Your task to perform on an android device: Do I have any events tomorrow? Image 0: 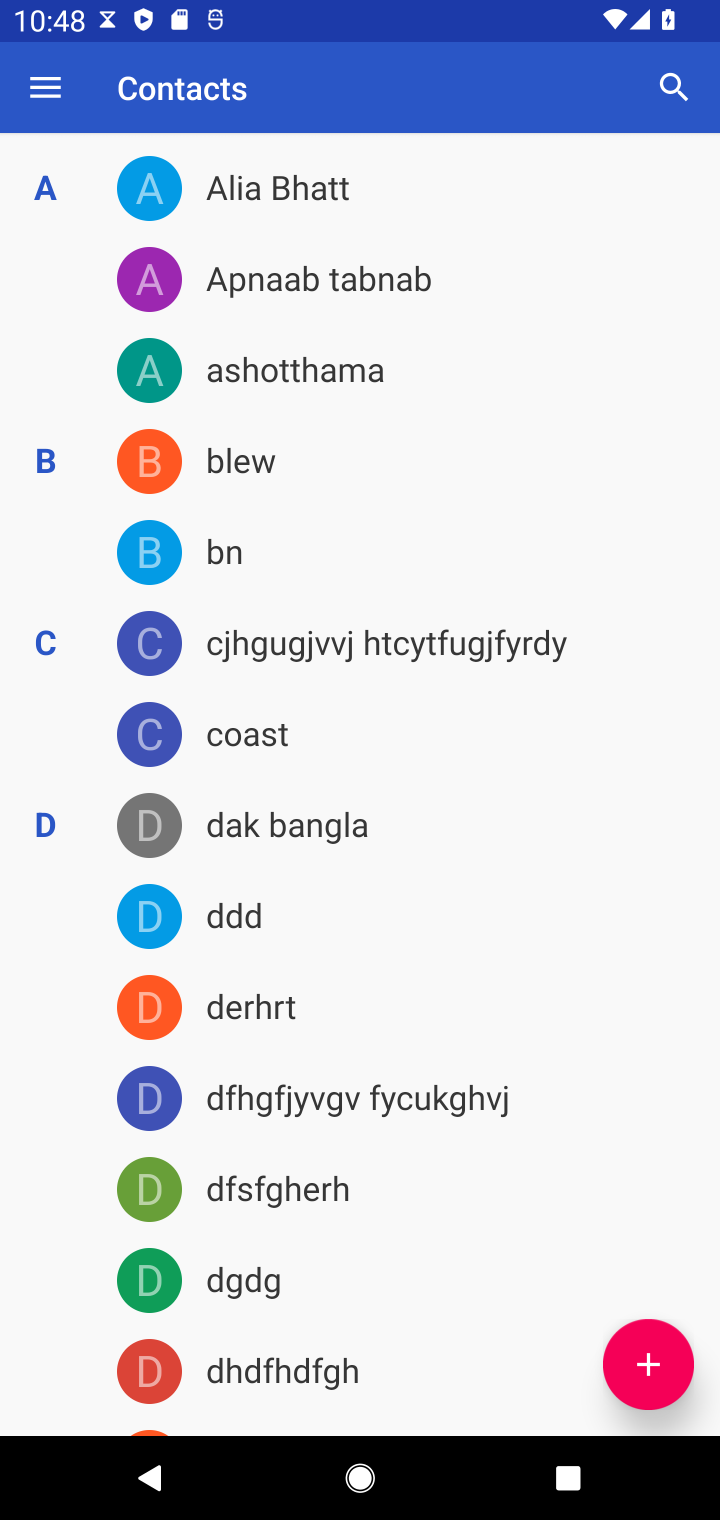
Step 0: press back button
Your task to perform on an android device: Do I have any events tomorrow? Image 1: 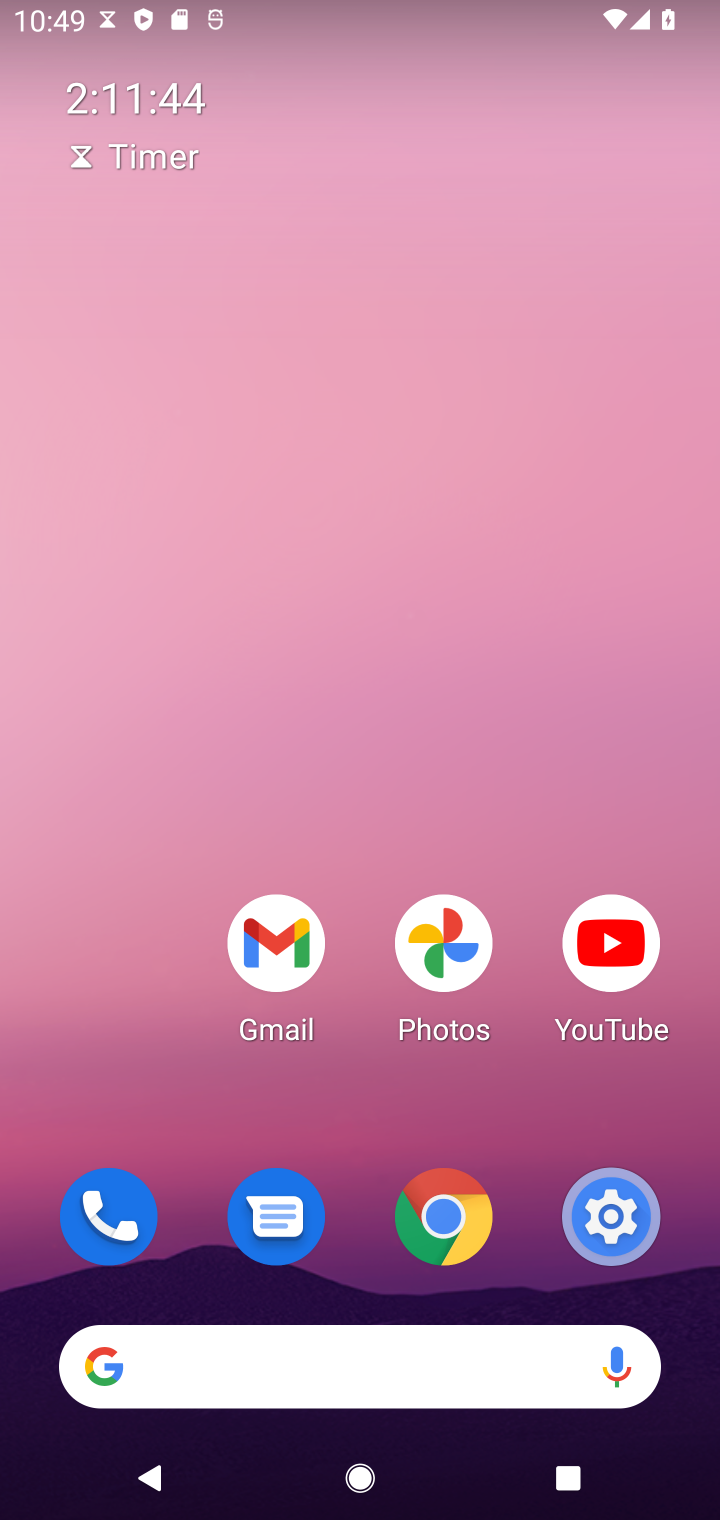
Step 1: drag from (136, 1111) to (280, 18)
Your task to perform on an android device: Do I have any events tomorrow? Image 2: 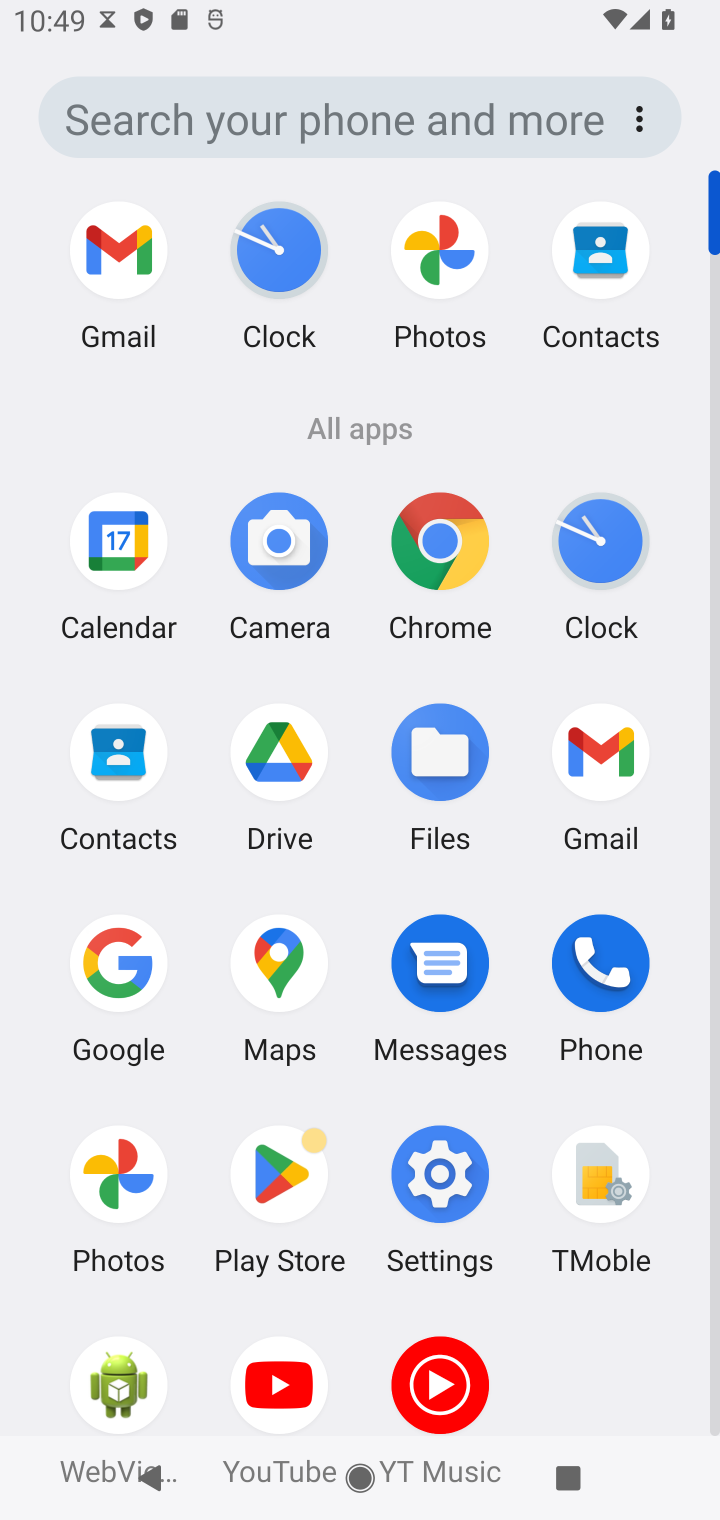
Step 2: click (121, 571)
Your task to perform on an android device: Do I have any events tomorrow? Image 3: 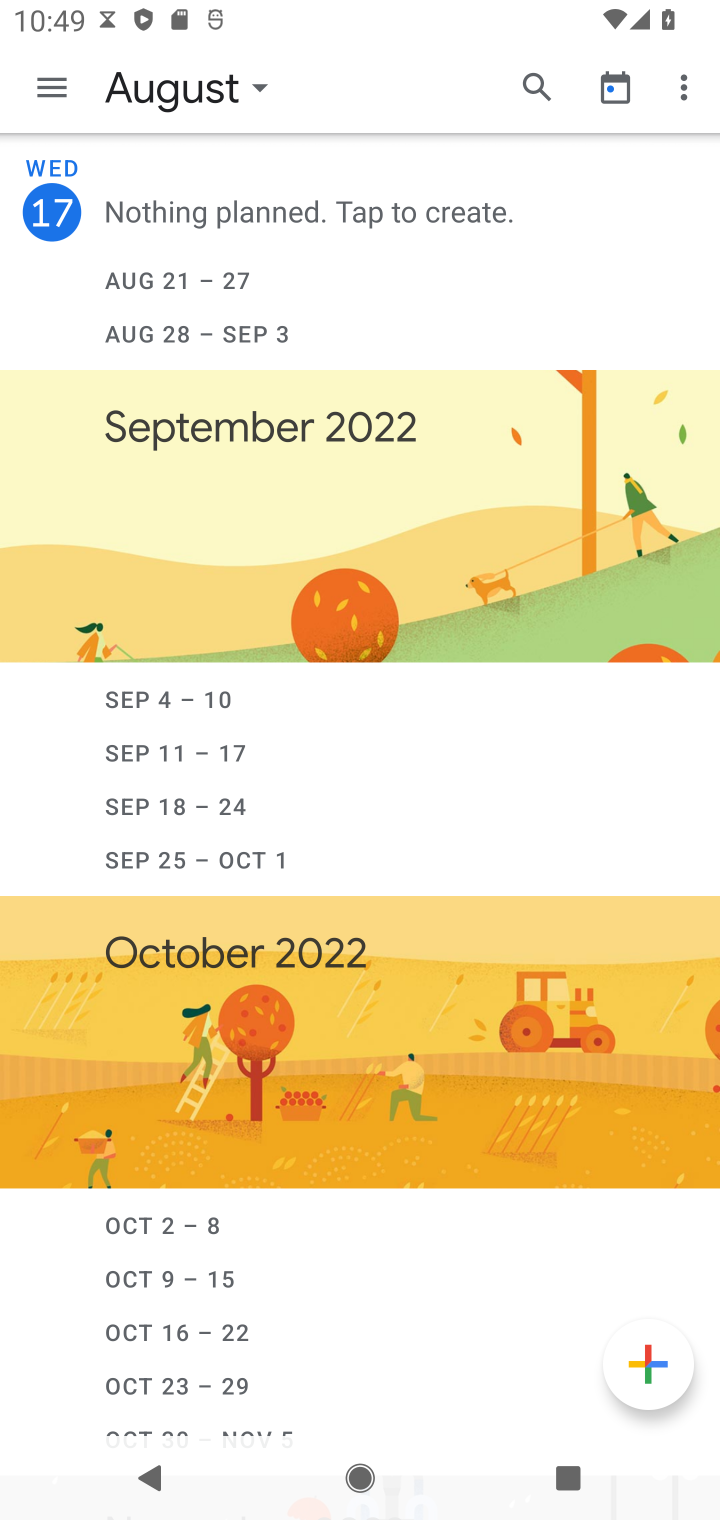
Step 3: task complete